Your task to perform on an android device: Open maps Image 0: 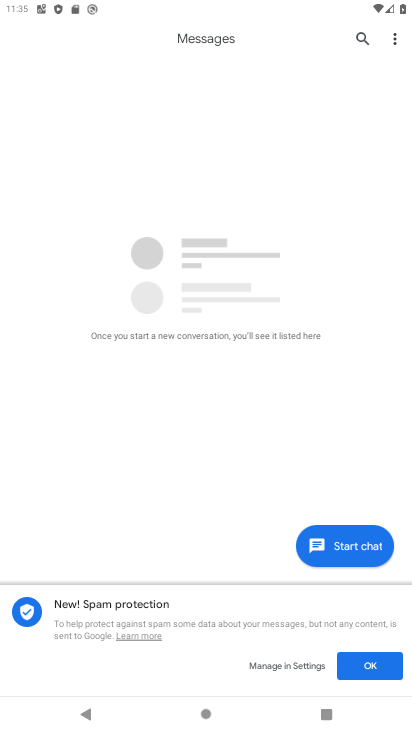
Step 0: press home button
Your task to perform on an android device: Open maps Image 1: 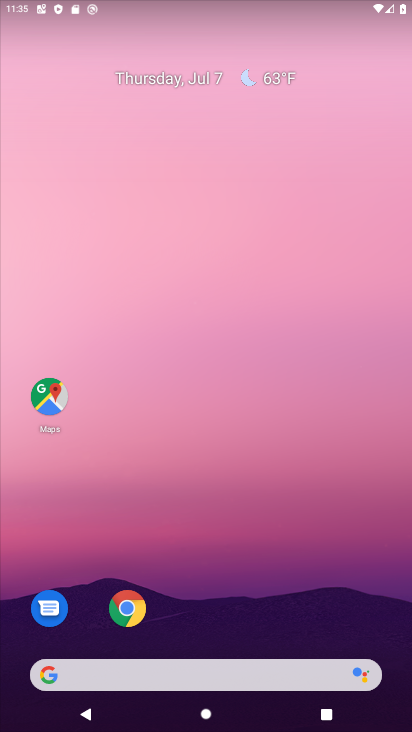
Step 1: click (55, 393)
Your task to perform on an android device: Open maps Image 2: 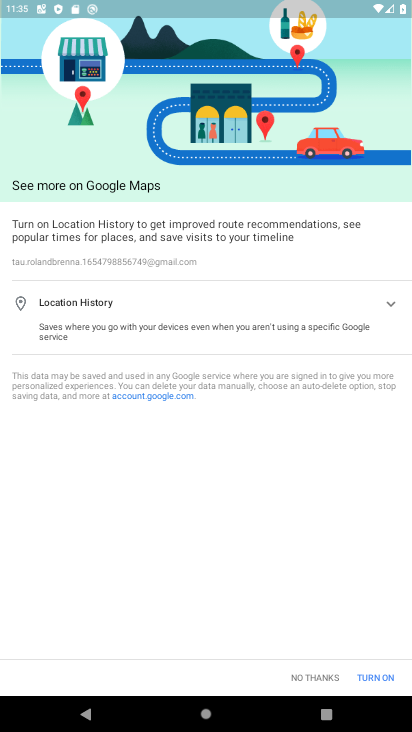
Step 2: task complete